Your task to perform on an android device: turn on sleep mode Image 0: 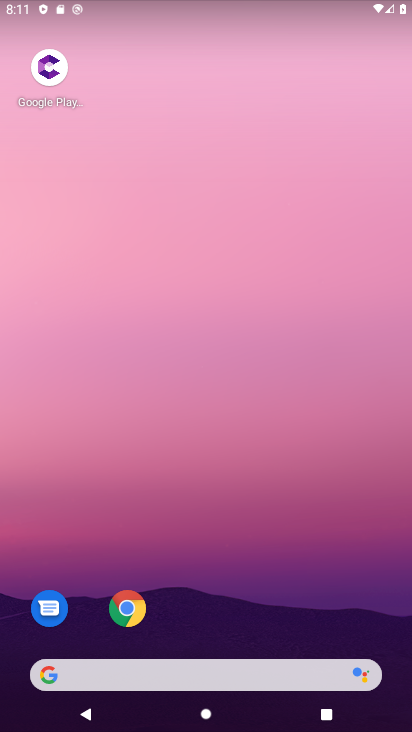
Step 0: drag from (170, 472) to (242, 2)
Your task to perform on an android device: turn on sleep mode Image 1: 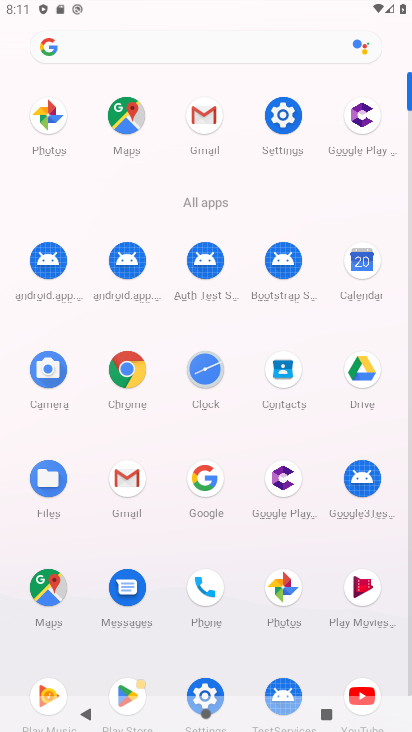
Step 1: click (282, 111)
Your task to perform on an android device: turn on sleep mode Image 2: 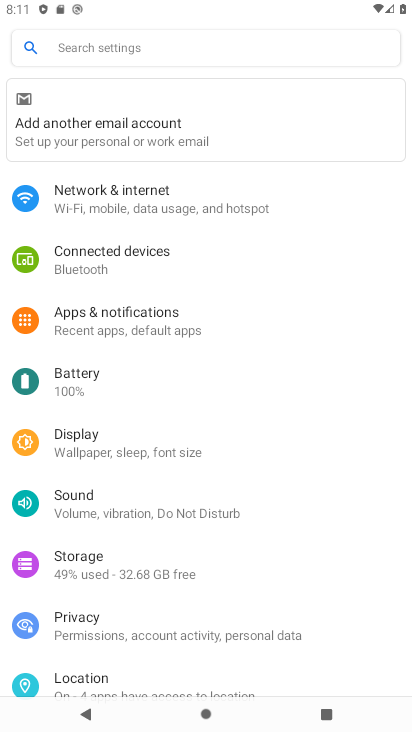
Step 2: click (96, 447)
Your task to perform on an android device: turn on sleep mode Image 3: 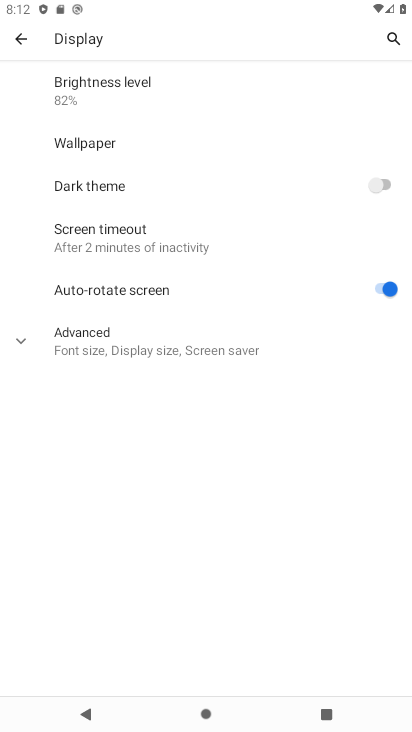
Step 3: click (137, 247)
Your task to perform on an android device: turn on sleep mode Image 4: 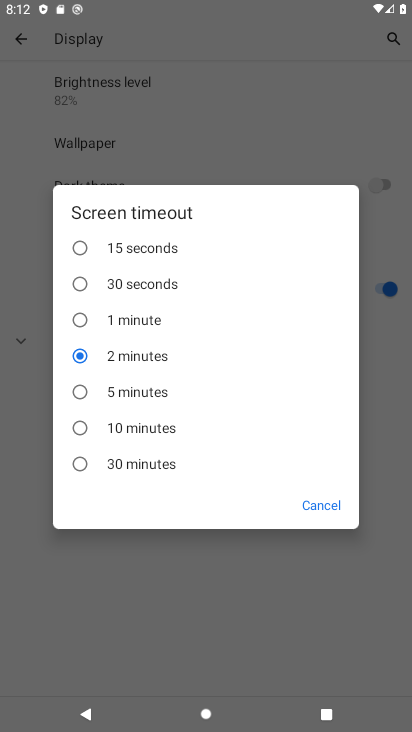
Step 4: task complete